Your task to perform on an android device: Open my contact list Image 0: 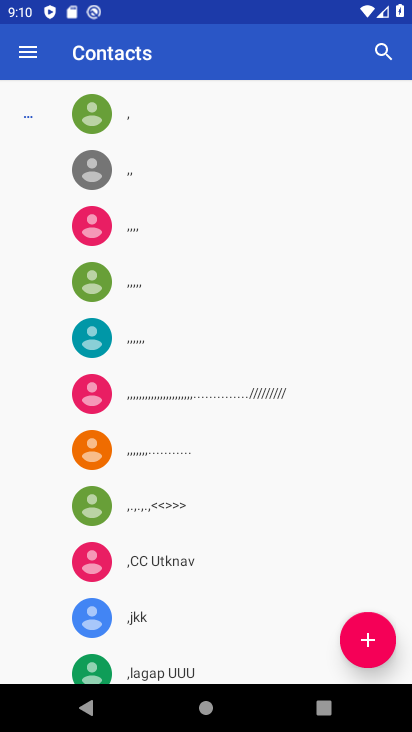
Step 0: press home button
Your task to perform on an android device: Open my contact list Image 1: 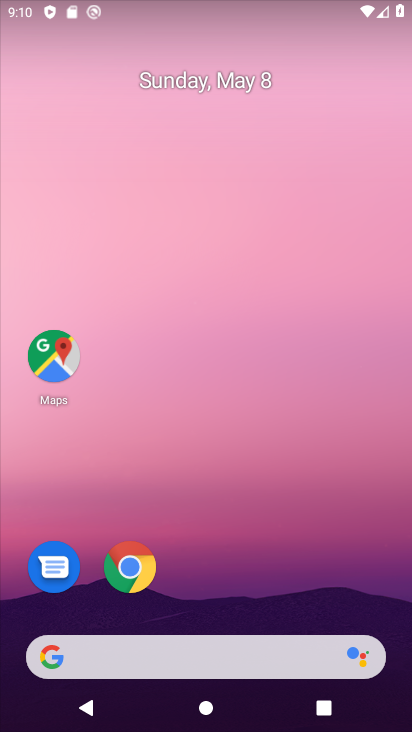
Step 1: drag from (360, 600) to (175, 127)
Your task to perform on an android device: Open my contact list Image 2: 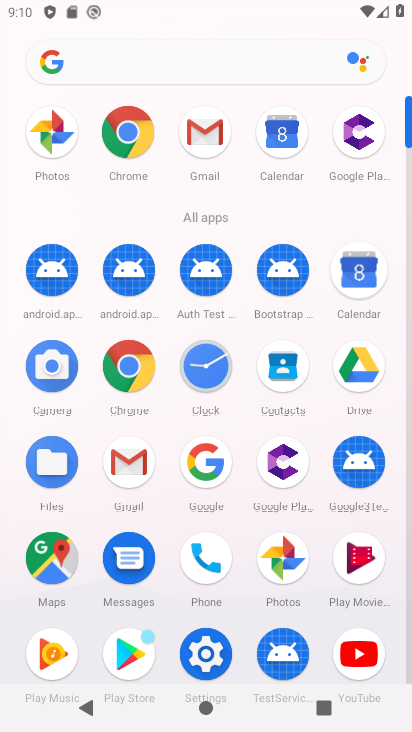
Step 2: drag from (227, 538) to (154, 103)
Your task to perform on an android device: Open my contact list Image 3: 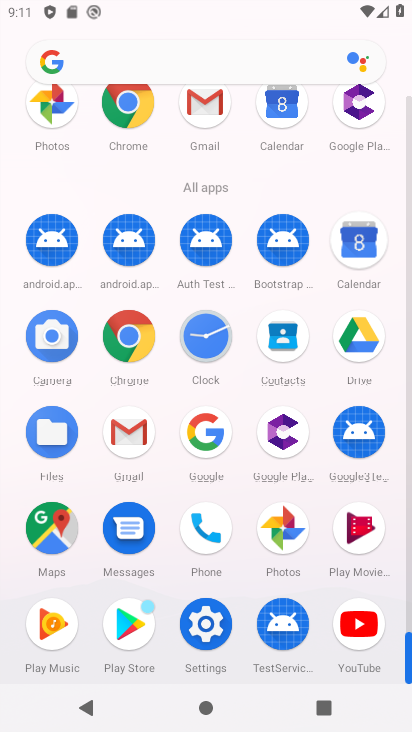
Step 3: click (280, 340)
Your task to perform on an android device: Open my contact list Image 4: 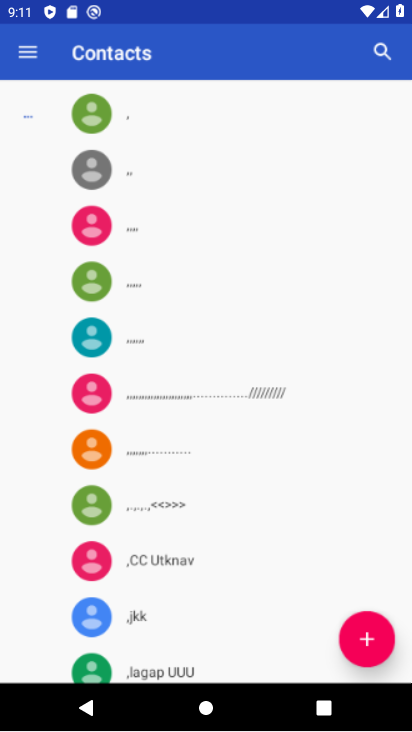
Step 4: click (281, 341)
Your task to perform on an android device: Open my contact list Image 5: 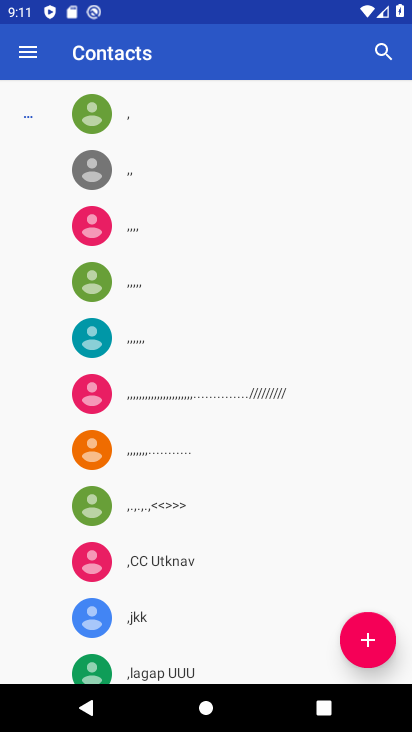
Step 5: click (279, 341)
Your task to perform on an android device: Open my contact list Image 6: 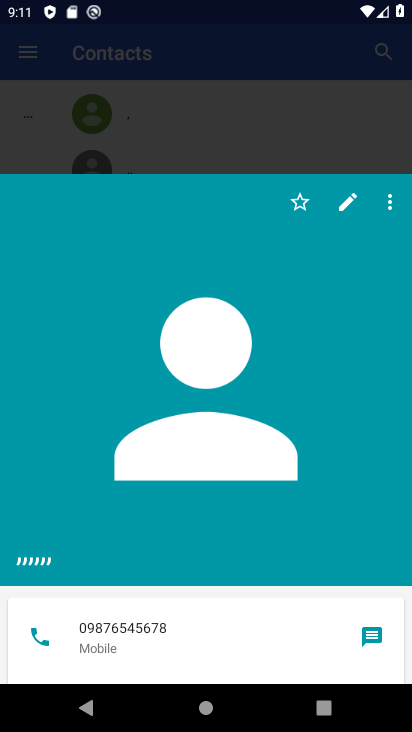
Step 6: task complete